Your task to perform on an android device: turn off wifi Image 0: 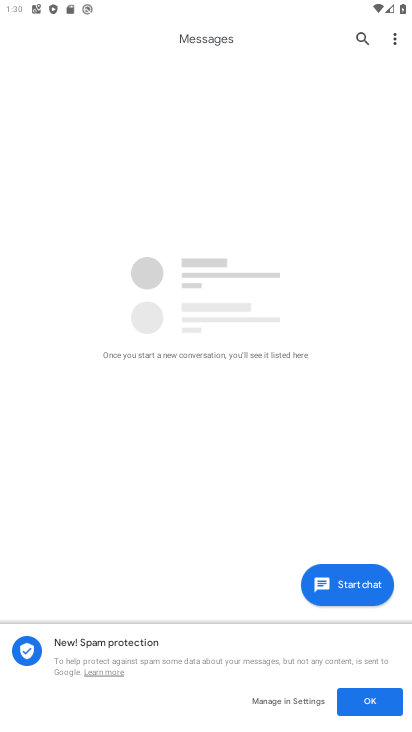
Step 0: press home button
Your task to perform on an android device: turn off wifi Image 1: 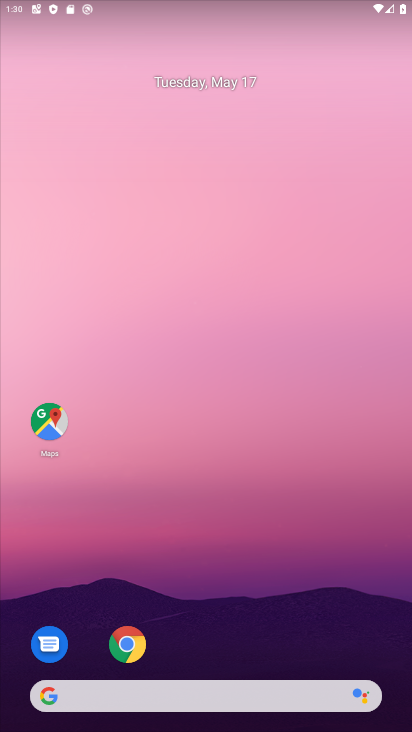
Step 1: drag from (209, 674) to (234, 297)
Your task to perform on an android device: turn off wifi Image 2: 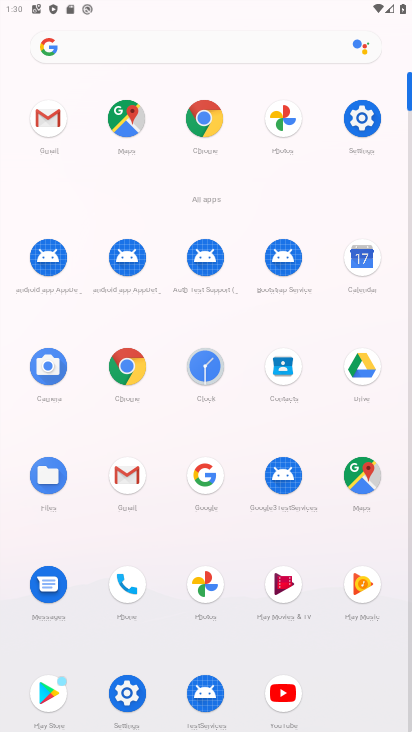
Step 2: click (343, 123)
Your task to perform on an android device: turn off wifi Image 3: 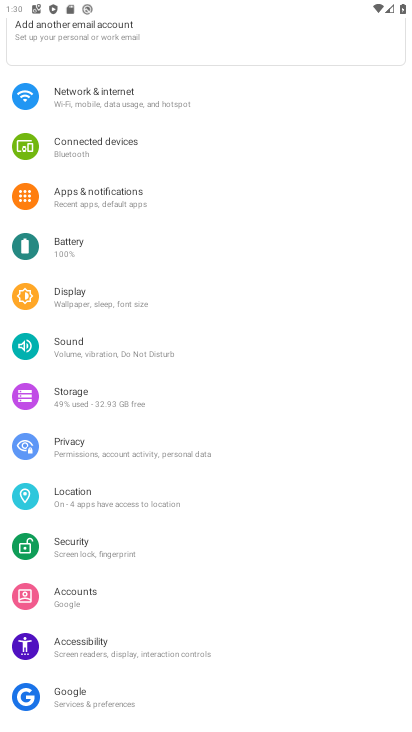
Step 3: click (128, 99)
Your task to perform on an android device: turn off wifi Image 4: 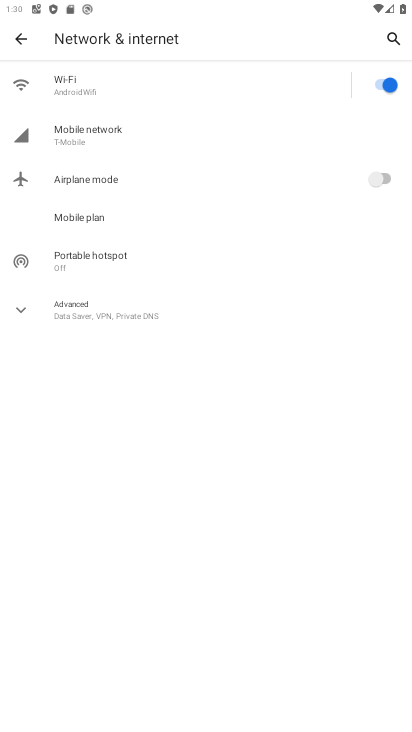
Step 4: click (382, 83)
Your task to perform on an android device: turn off wifi Image 5: 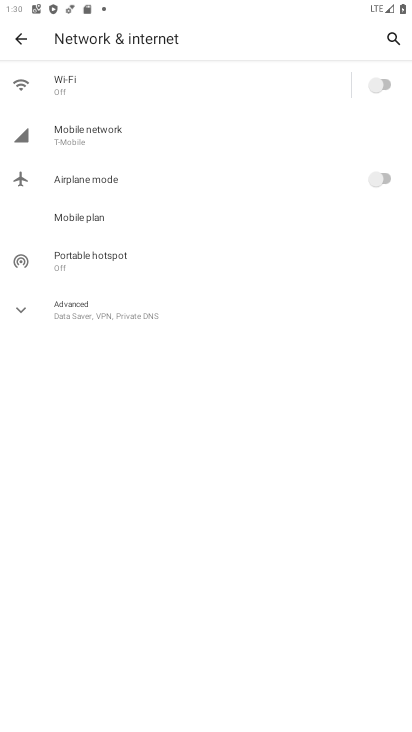
Step 5: task complete